Your task to perform on an android device: turn on wifi Image 0: 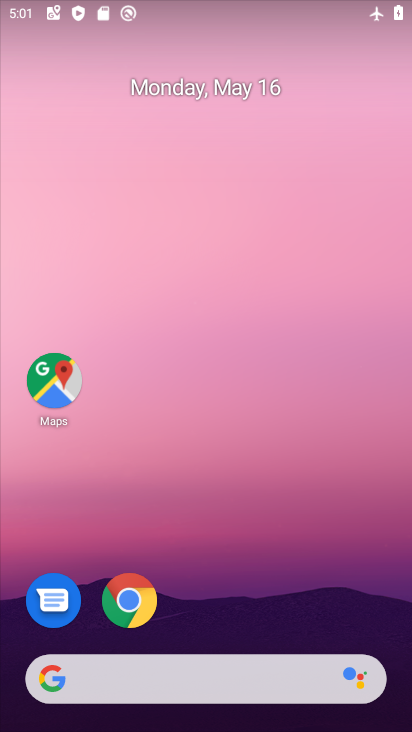
Step 0: drag from (175, 646) to (185, 6)
Your task to perform on an android device: turn on wifi Image 1: 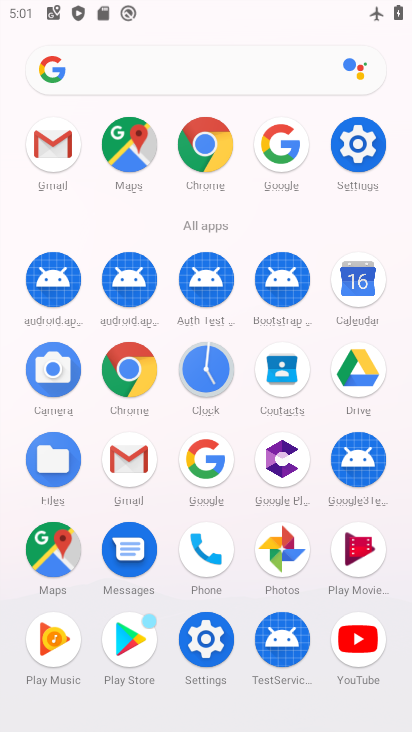
Step 1: click (370, 134)
Your task to perform on an android device: turn on wifi Image 2: 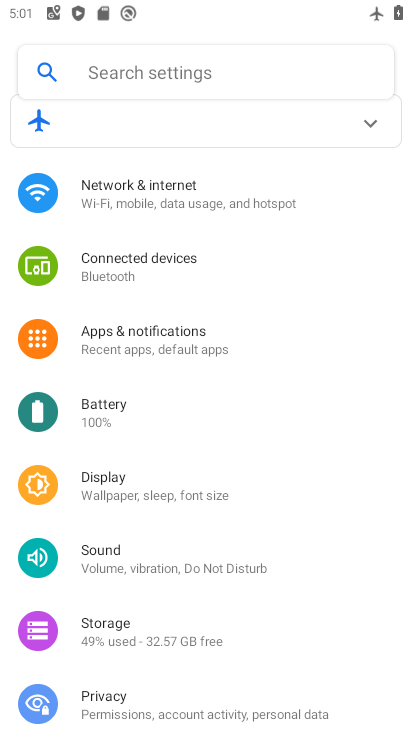
Step 2: click (93, 206)
Your task to perform on an android device: turn on wifi Image 3: 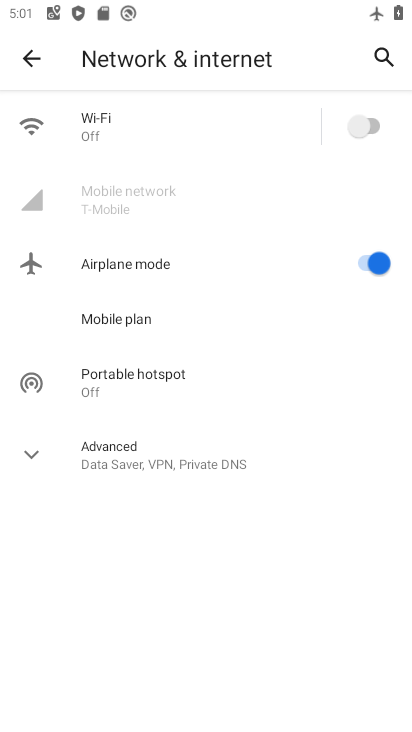
Step 3: click (371, 121)
Your task to perform on an android device: turn on wifi Image 4: 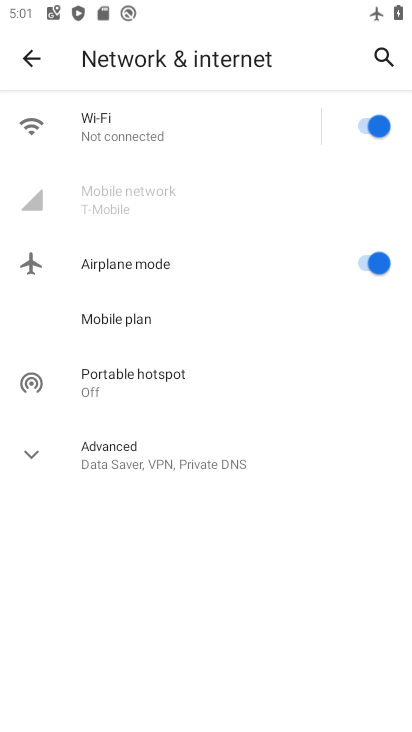
Step 4: task complete